Your task to perform on an android device: find which apps use the phone's location Image 0: 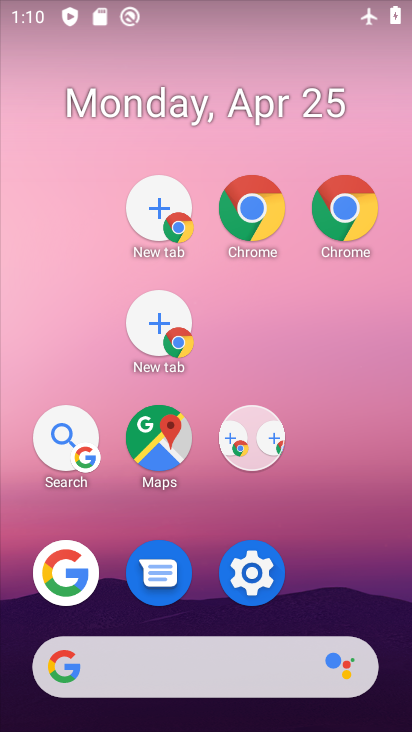
Step 0: drag from (213, 283) to (197, 141)
Your task to perform on an android device: find which apps use the phone's location Image 1: 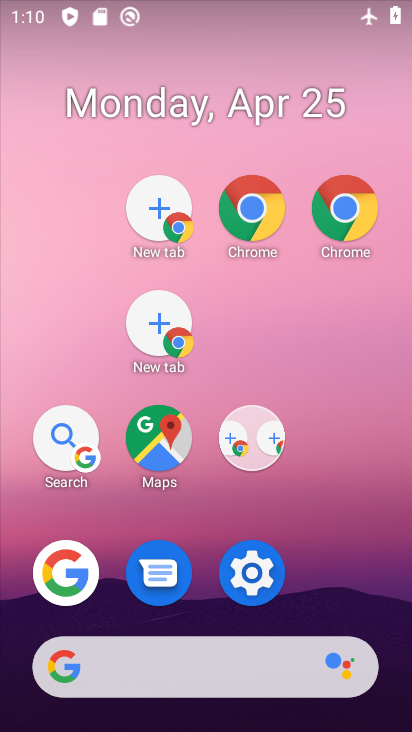
Step 1: drag from (303, 699) to (194, 101)
Your task to perform on an android device: find which apps use the phone's location Image 2: 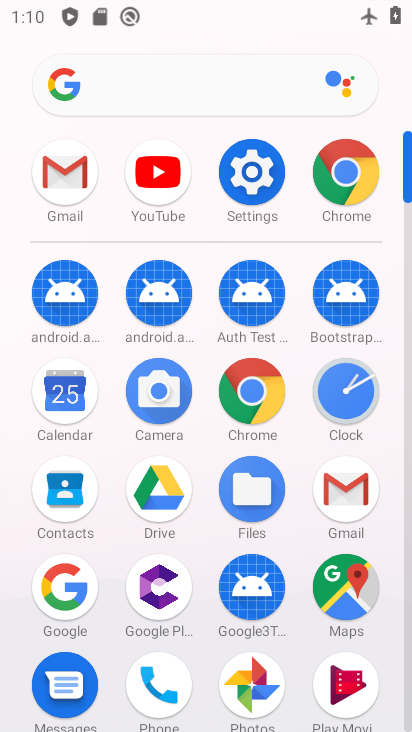
Step 2: click (252, 183)
Your task to perform on an android device: find which apps use the phone's location Image 3: 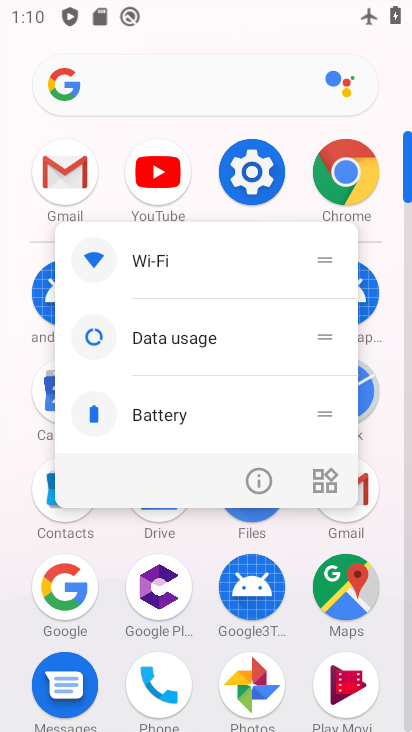
Step 3: click (249, 166)
Your task to perform on an android device: find which apps use the phone's location Image 4: 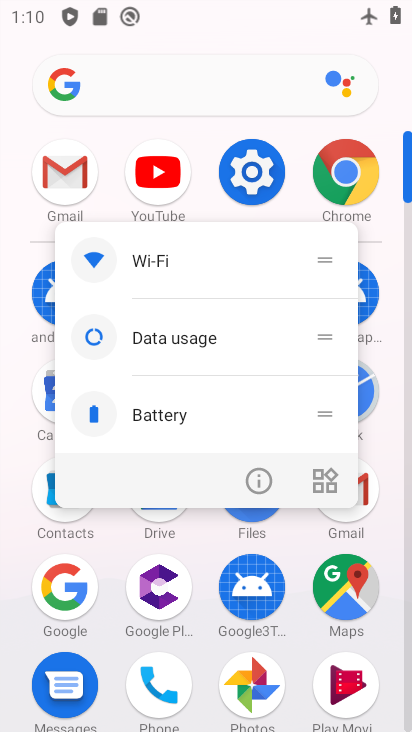
Step 4: click (250, 167)
Your task to perform on an android device: find which apps use the phone's location Image 5: 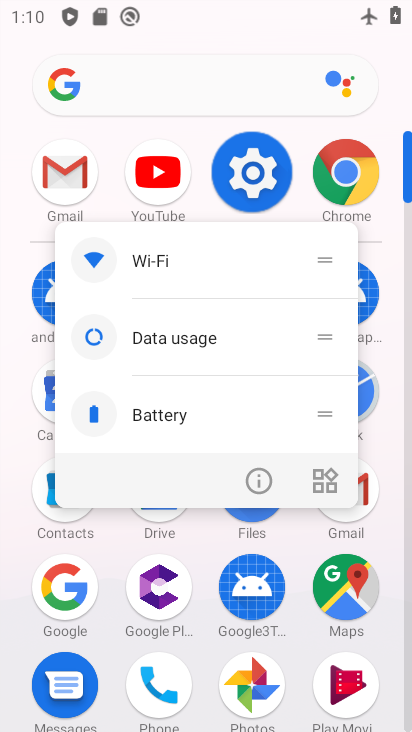
Step 5: click (250, 167)
Your task to perform on an android device: find which apps use the phone's location Image 6: 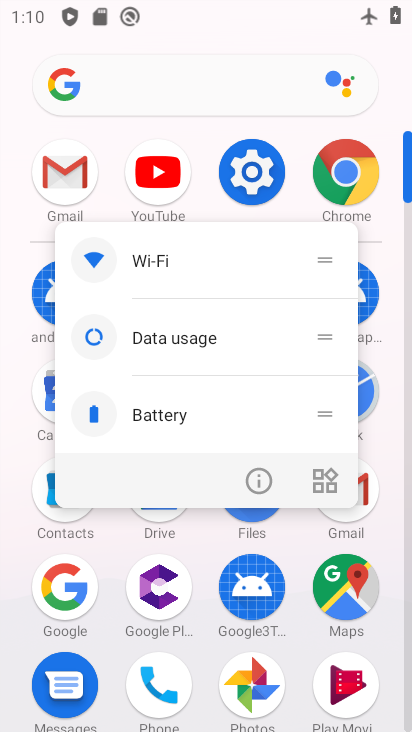
Step 6: click (253, 172)
Your task to perform on an android device: find which apps use the phone's location Image 7: 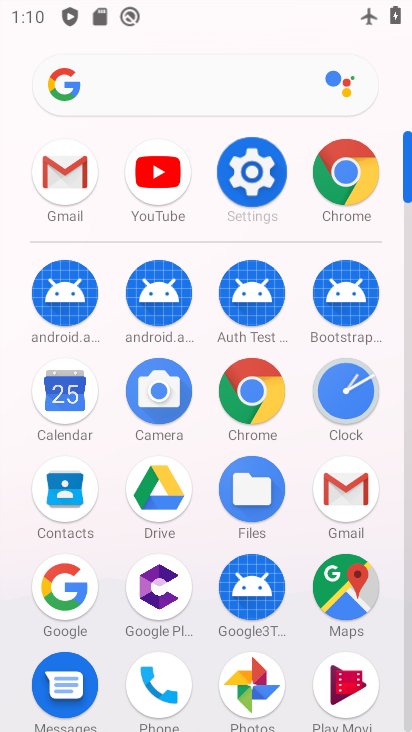
Step 7: click (255, 174)
Your task to perform on an android device: find which apps use the phone's location Image 8: 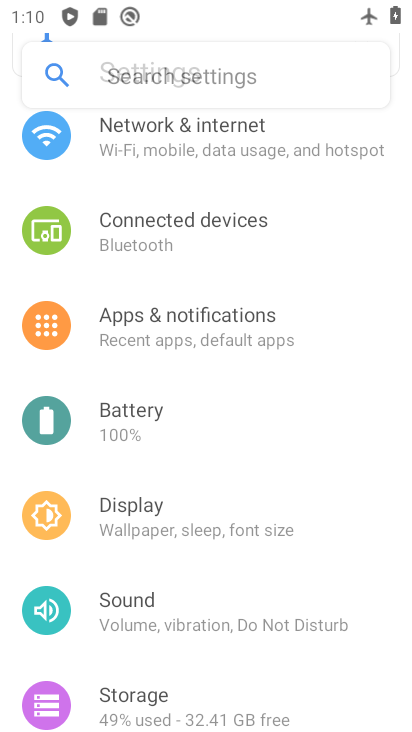
Step 8: click (255, 174)
Your task to perform on an android device: find which apps use the phone's location Image 9: 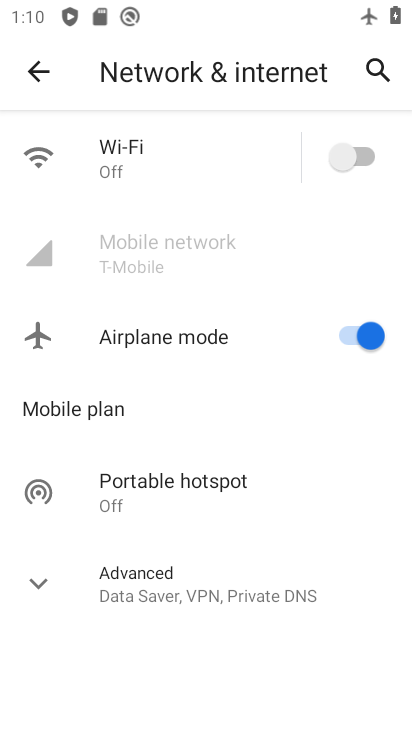
Step 9: click (39, 66)
Your task to perform on an android device: find which apps use the phone's location Image 10: 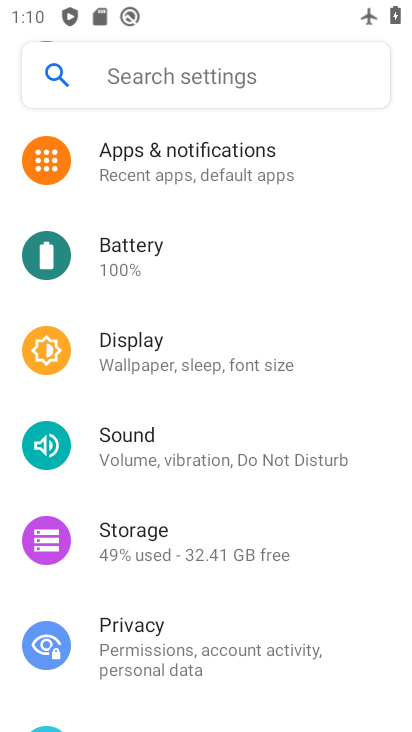
Step 10: drag from (188, 567) to (172, 131)
Your task to perform on an android device: find which apps use the phone's location Image 11: 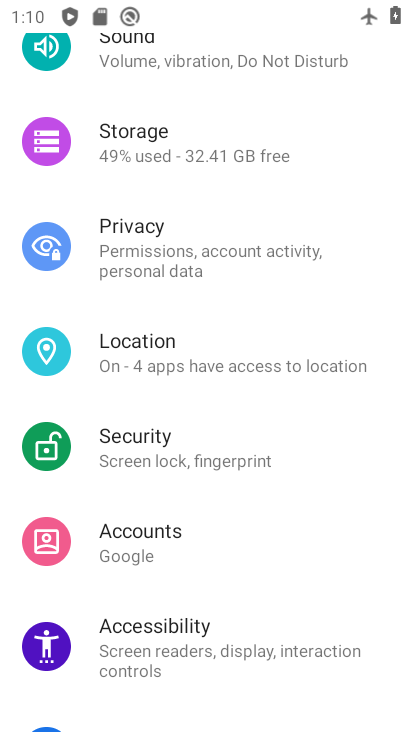
Step 11: drag from (207, 547) to (140, 174)
Your task to perform on an android device: find which apps use the phone's location Image 12: 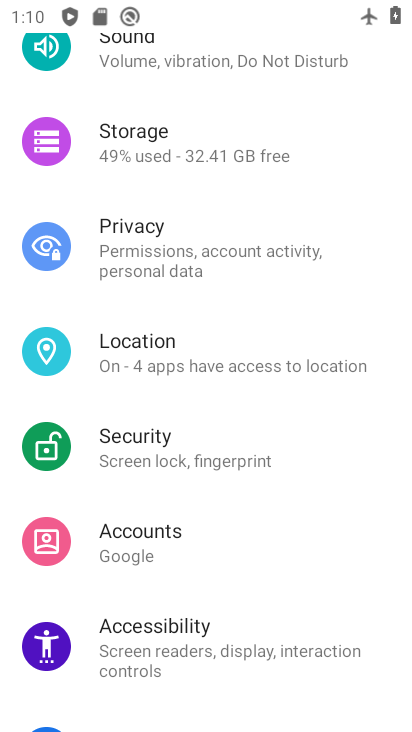
Step 12: click (158, 353)
Your task to perform on an android device: find which apps use the phone's location Image 13: 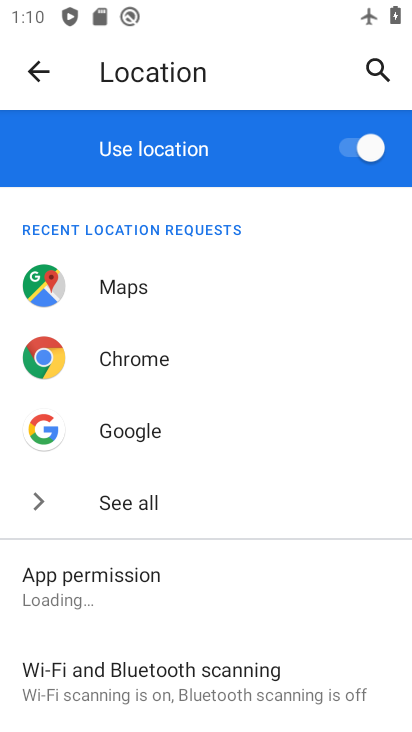
Step 13: drag from (151, 611) to (86, 187)
Your task to perform on an android device: find which apps use the phone's location Image 14: 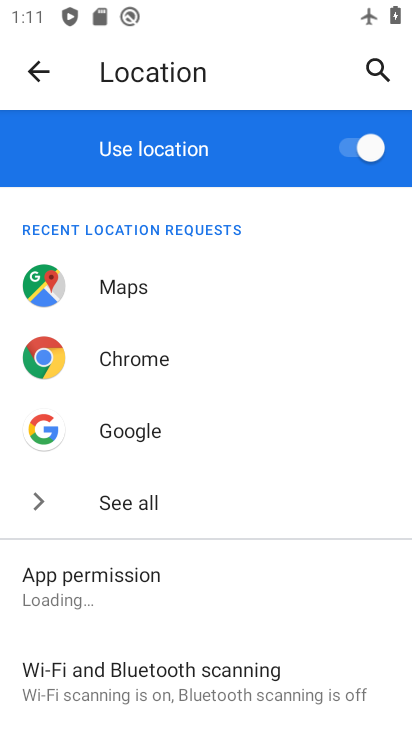
Step 14: click (75, 584)
Your task to perform on an android device: find which apps use the phone's location Image 15: 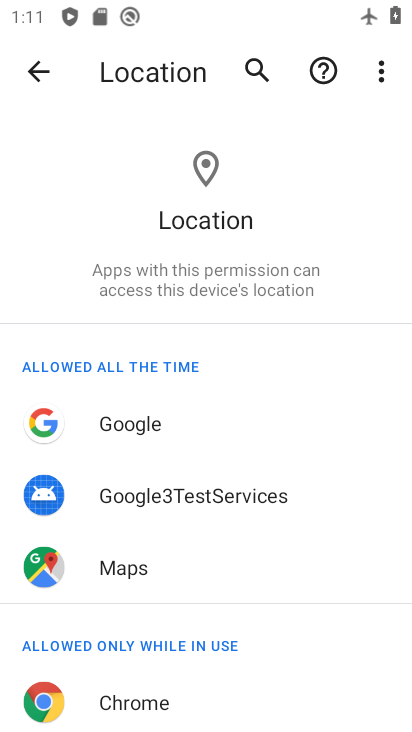
Step 15: task complete